Your task to perform on an android device: Search for the new Jordans on Nike.com Image 0: 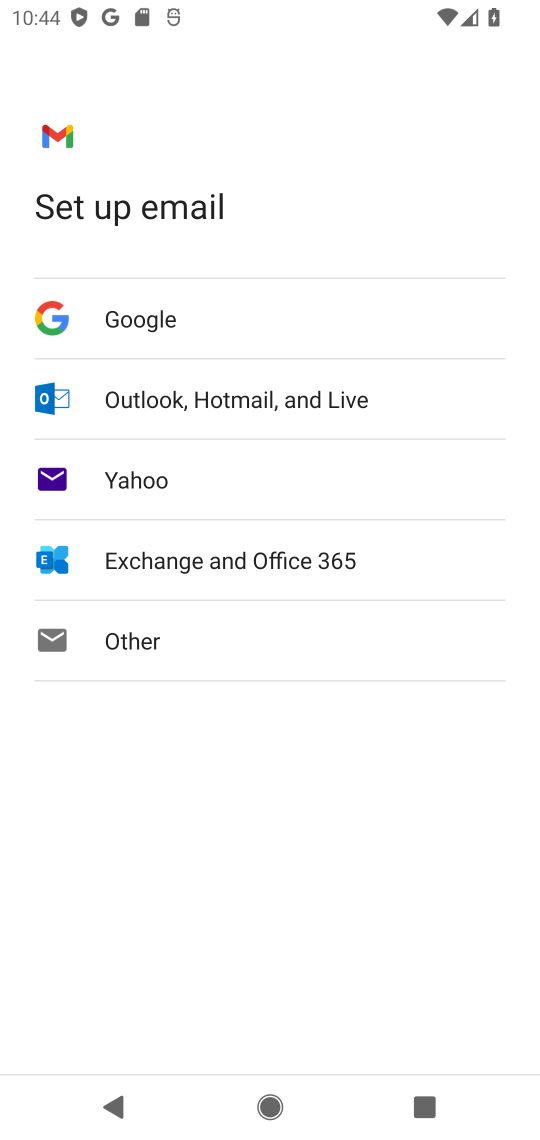
Step 0: press home button
Your task to perform on an android device: Search for the new Jordans on Nike.com Image 1: 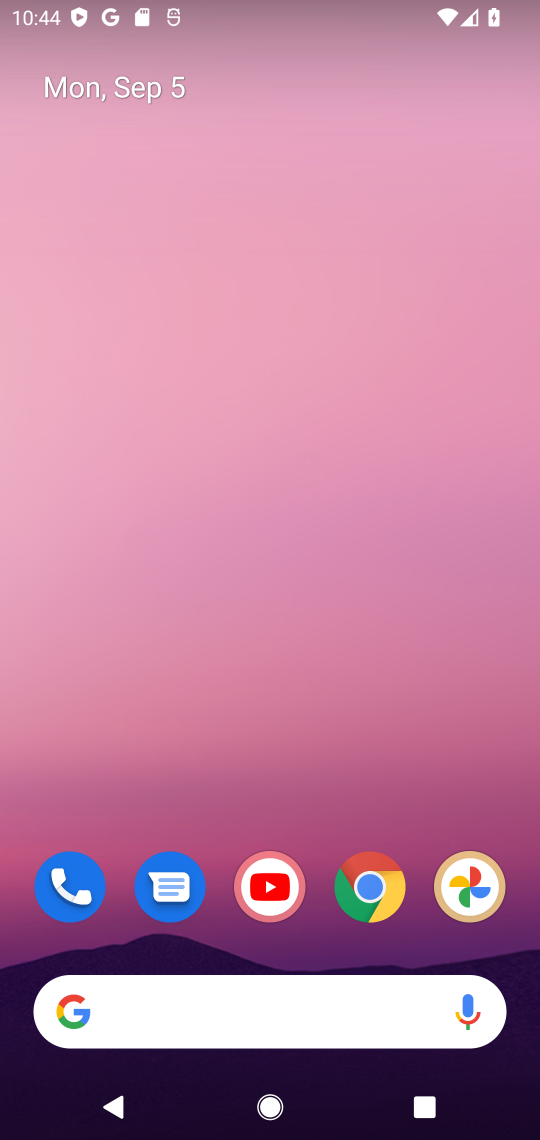
Step 1: click (345, 891)
Your task to perform on an android device: Search for the new Jordans on Nike.com Image 2: 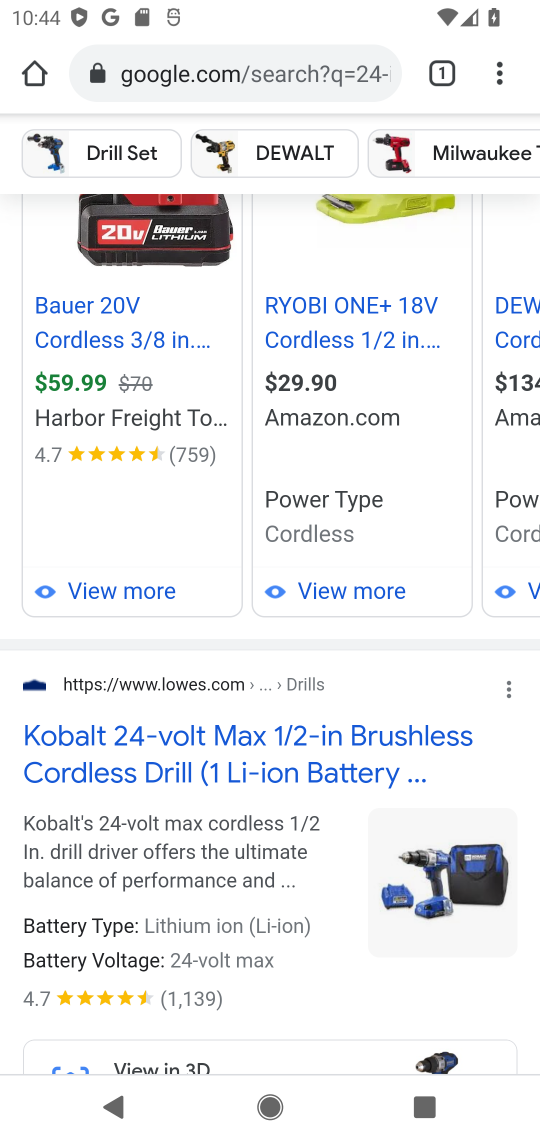
Step 2: click (265, 77)
Your task to perform on an android device: Search for the new Jordans on Nike.com Image 3: 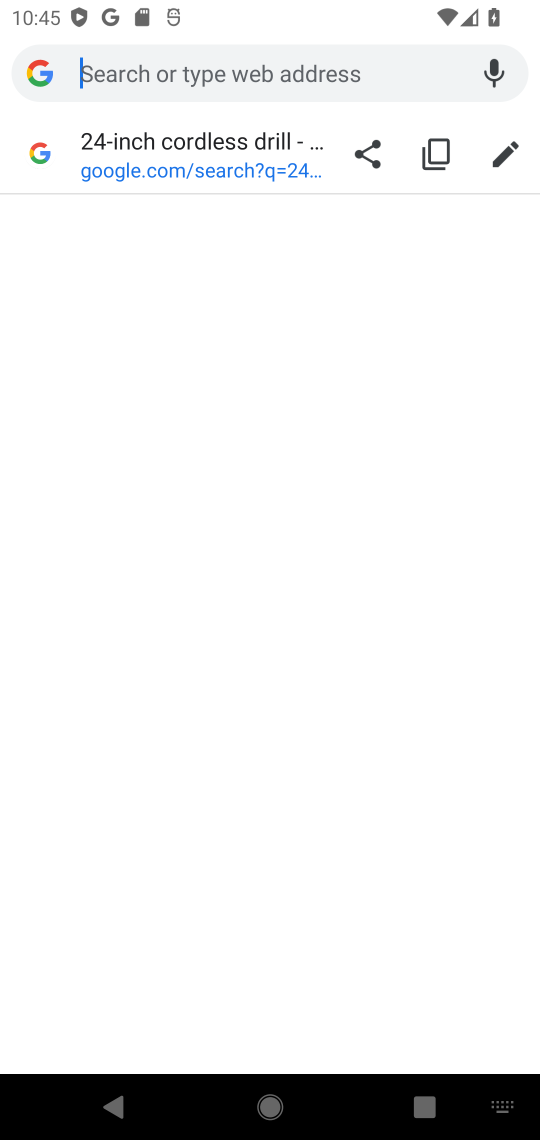
Step 3: type "nike.com"
Your task to perform on an android device: Search for the new Jordans on Nike.com Image 4: 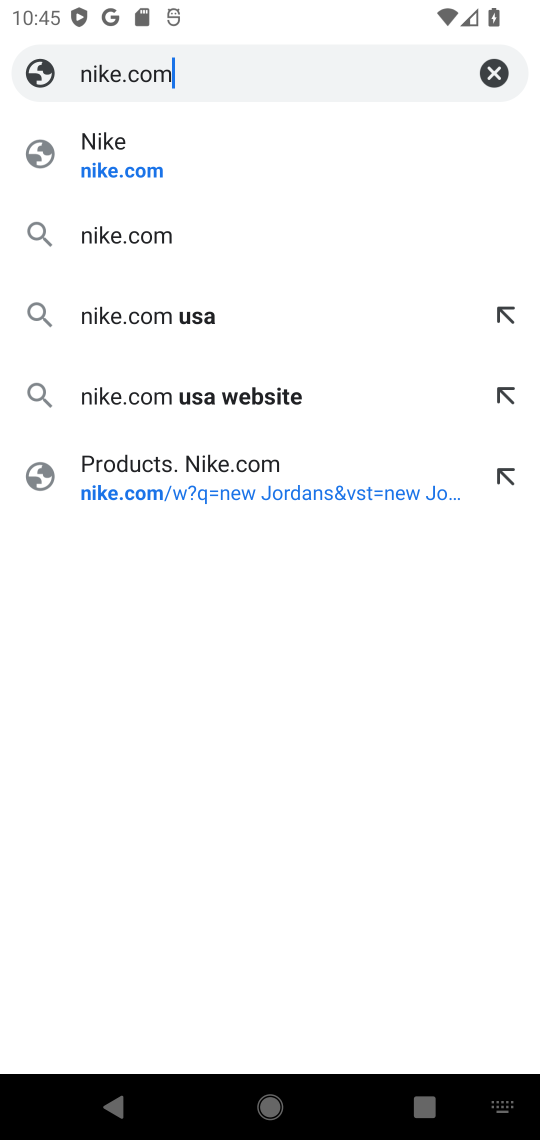
Step 4: press enter
Your task to perform on an android device: Search for the new Jordans on Nike.com Image 5: 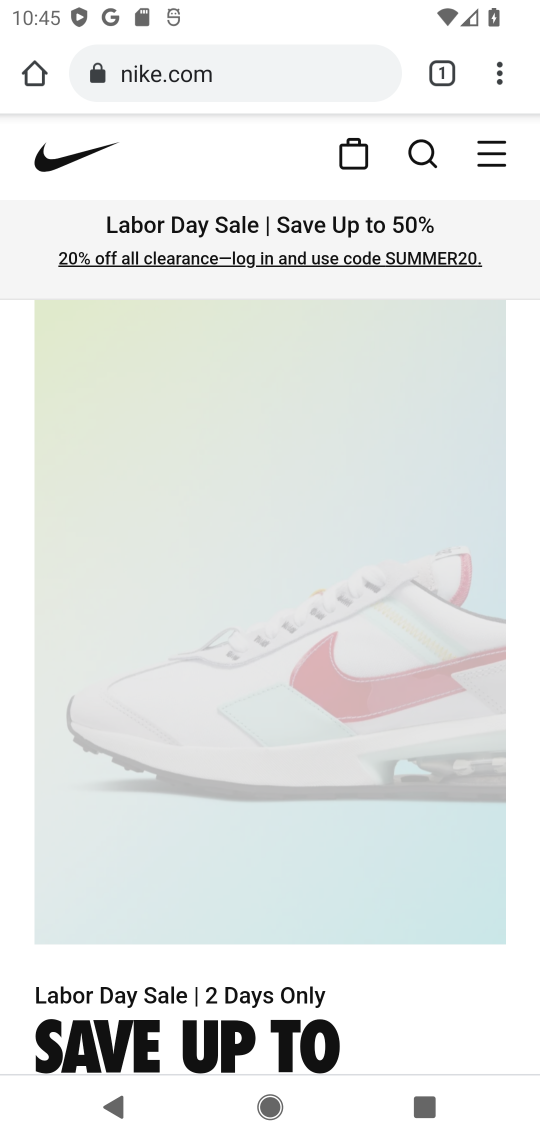
Step 5: click (412, 148)
Your task to perform on an android device: Search for the new Jordans on Nike.com Image 6: 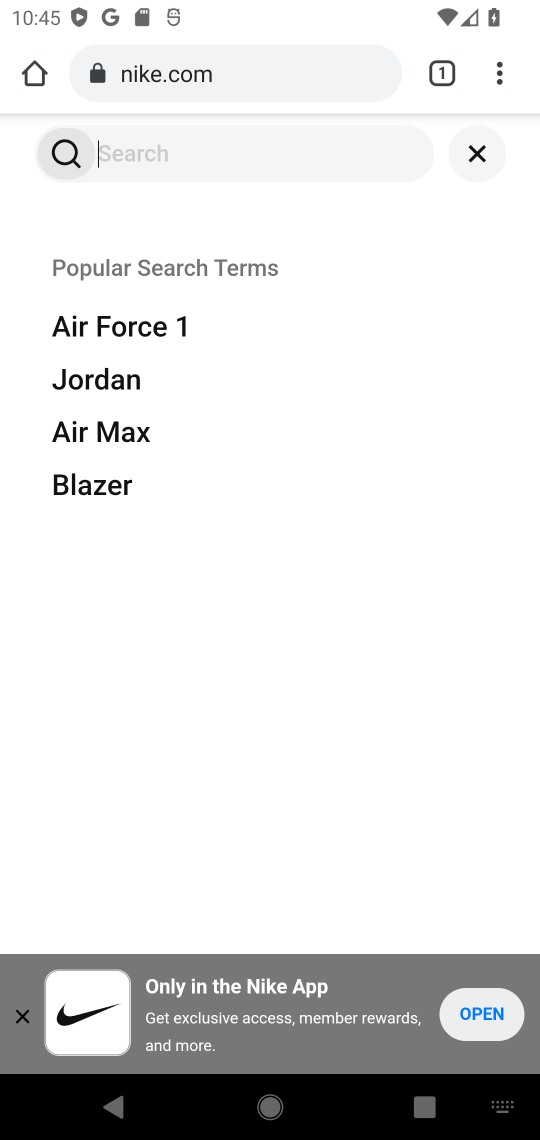
Step 6: type "new Jordans"
Your task to perform on an android device: Search for the new Jordans on Nike.com Image 7: 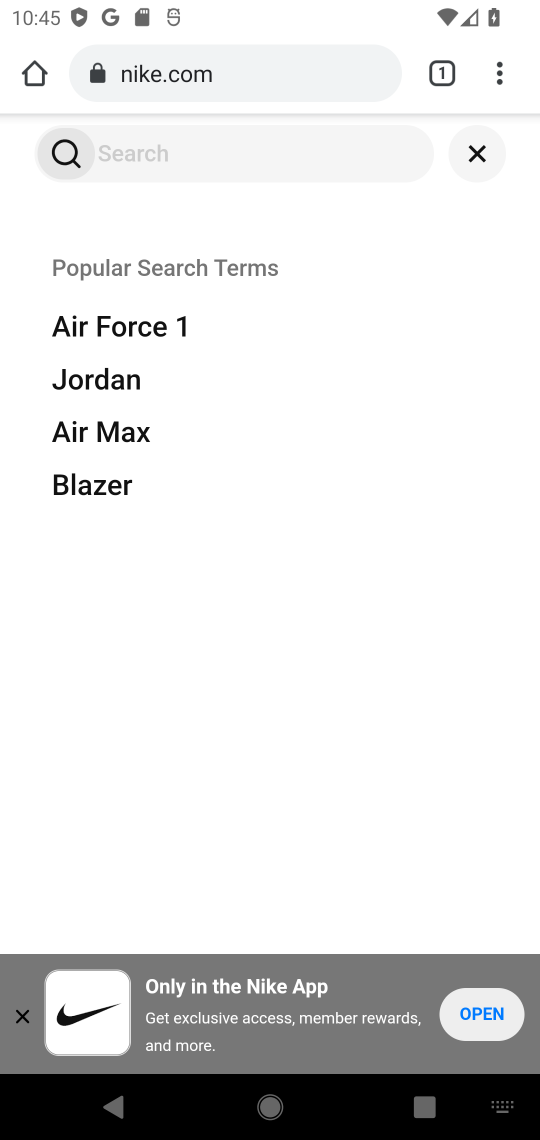
Step 7: type ""
Your task to perform on an android device: Search for the new Jordans on Nike.com Image 8: 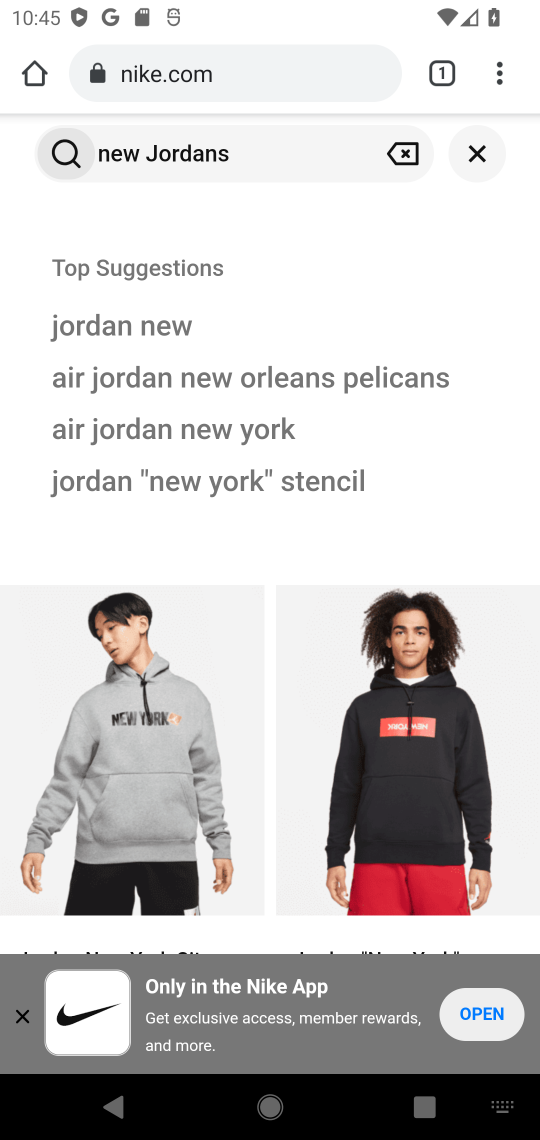
Step 8: press enter
Your task to perform on an android device: Search for the new Jordans on Nike.com Image 9: 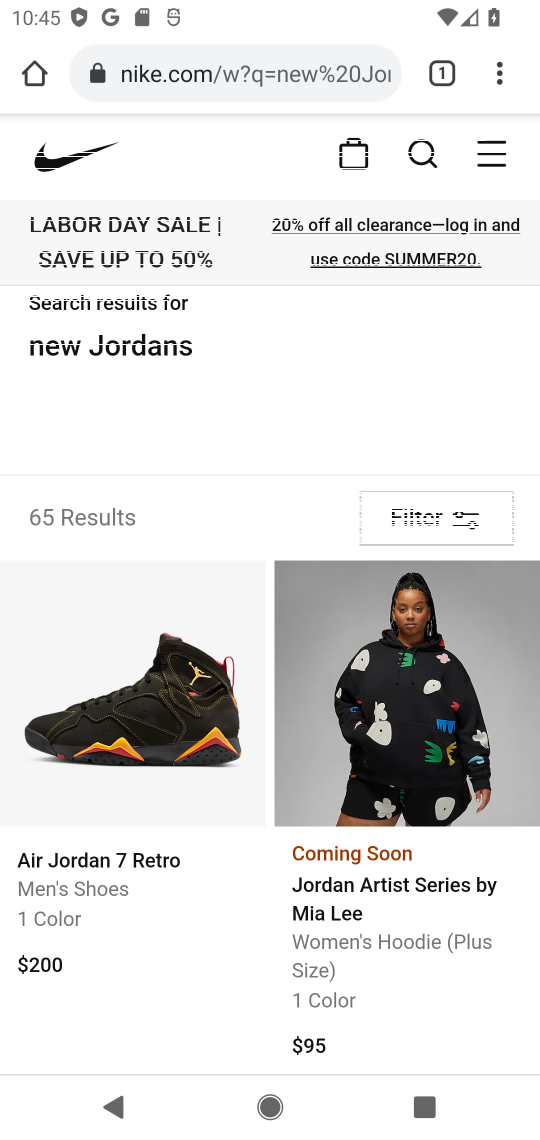
Step 9: drag from (251, 817) to (215, 332)
Your task to perform on an android device: Search for the new Jordans on Nike.com Image 10: 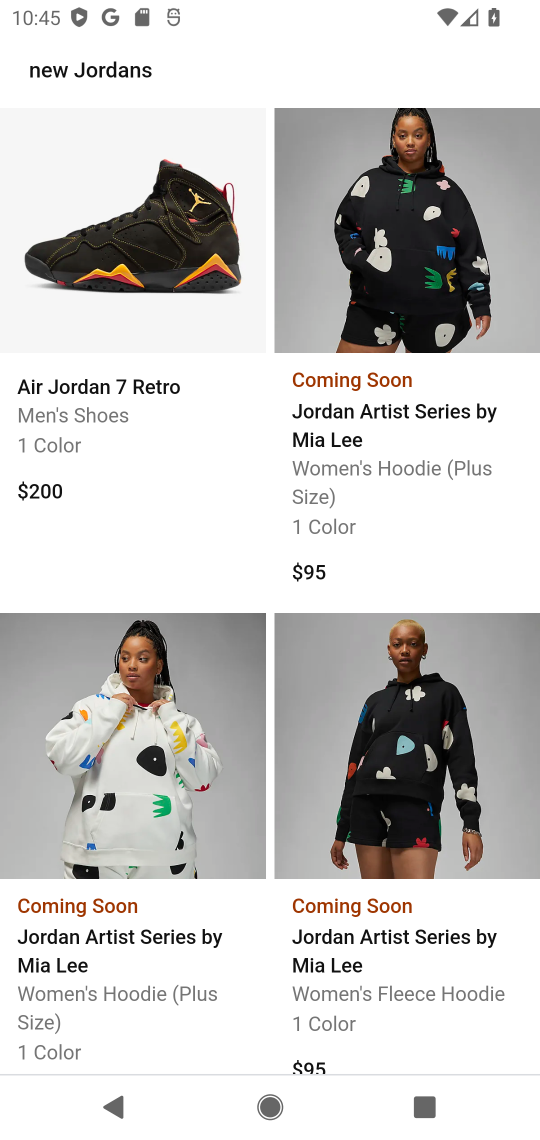
Step 10: drag from (224, 390) to (219, 287)
Your task to perform on an android device: Search for the new Jordans on Nike.com Image 11: 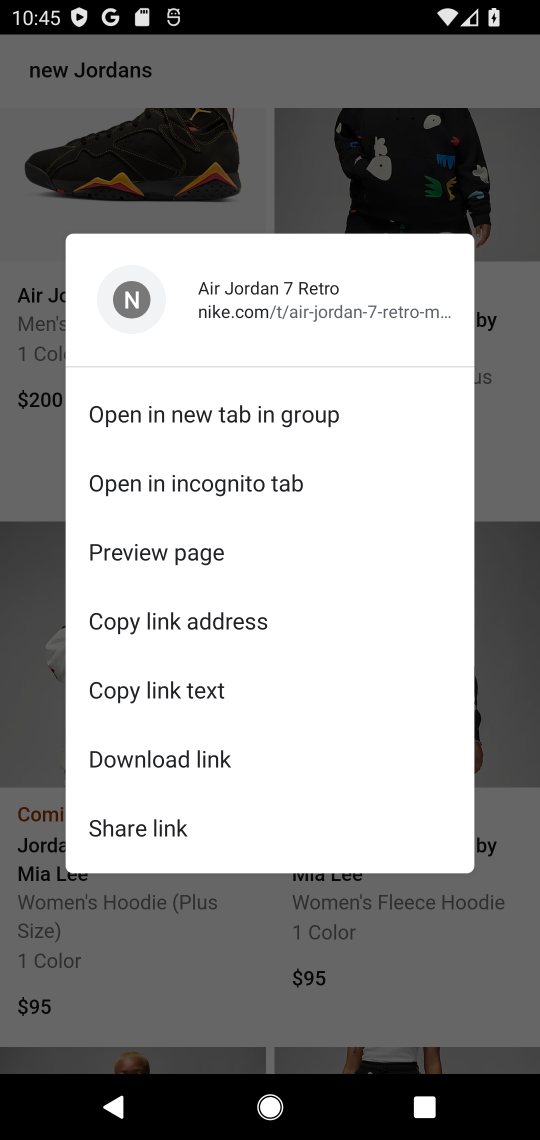
Step 11: click (506, 565)
Your task to perform on an android device: Search for the new Jordans on Nike.com Image 12: 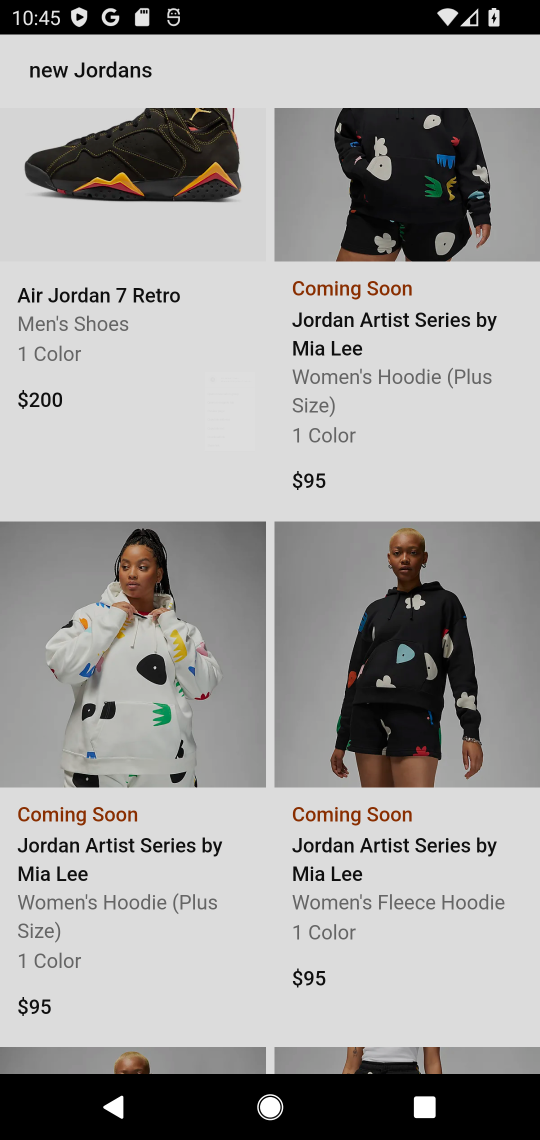
Step 12: drag from (237, 769) to (254, 173)
Your task to perform on an android device: Search for the new Jordans on Nike.com Image 13: 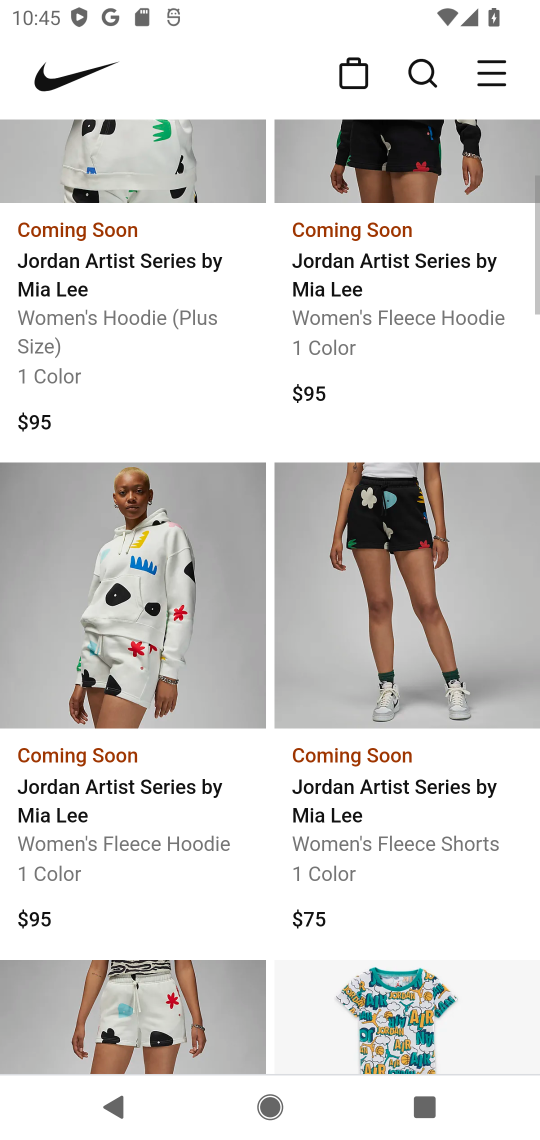
Step 13: drag from (268, 508) to (289, 262)
Your task to perform on an android device: Search for the new Jordans on Nike.com Image 14: 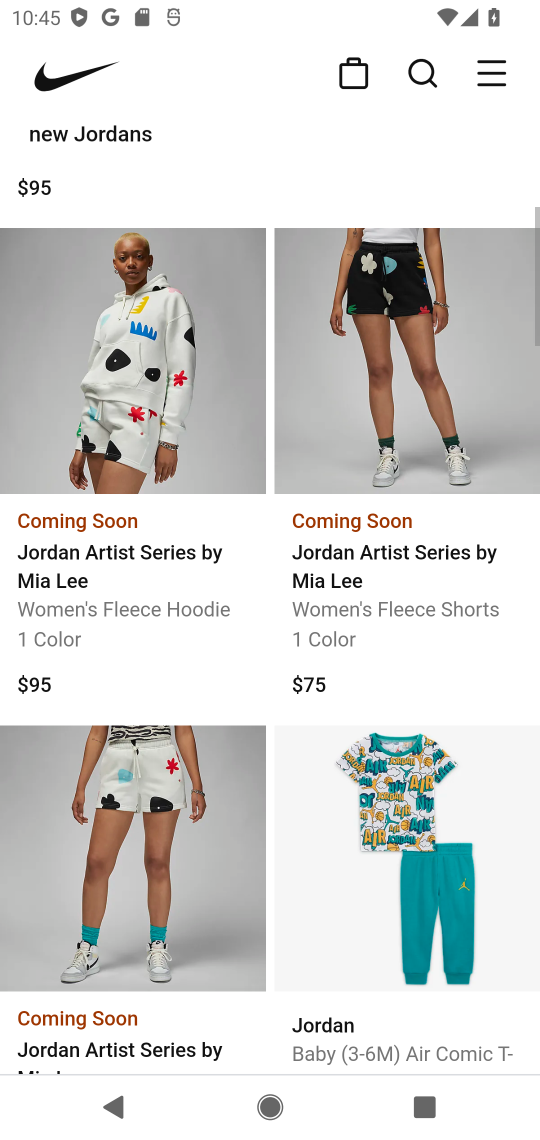
Step 14: drag from (271, 612) to (260, 158)
Your task to perform on an android device: Search for the new Jordans on Nike.com Image 15: 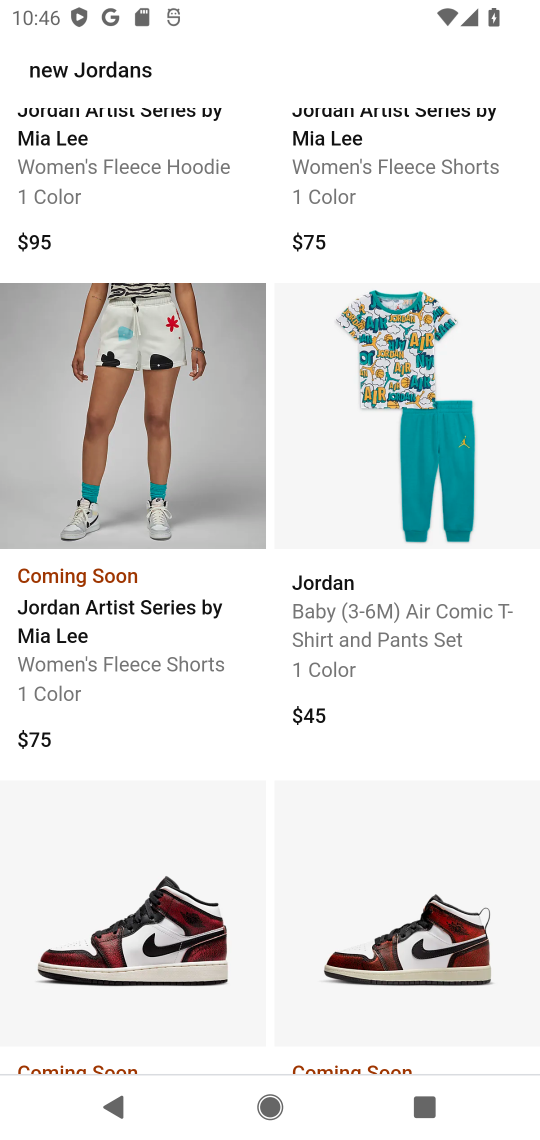
Step 15: drag from (248, 784) to (254, 343)
Your task to perform on an android device: Search for the new Jordans on Nike.com Image 16: 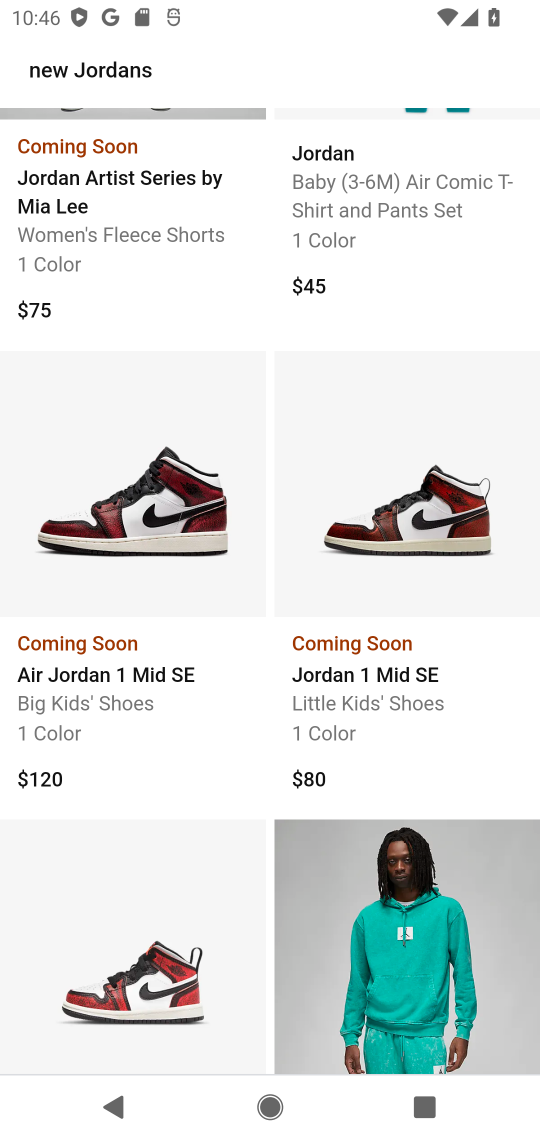
Step 16: drag from (214, 588) to (220, 321)
Your task to perform on an android device: Search for the new Jordans on Nike.com Image 17: 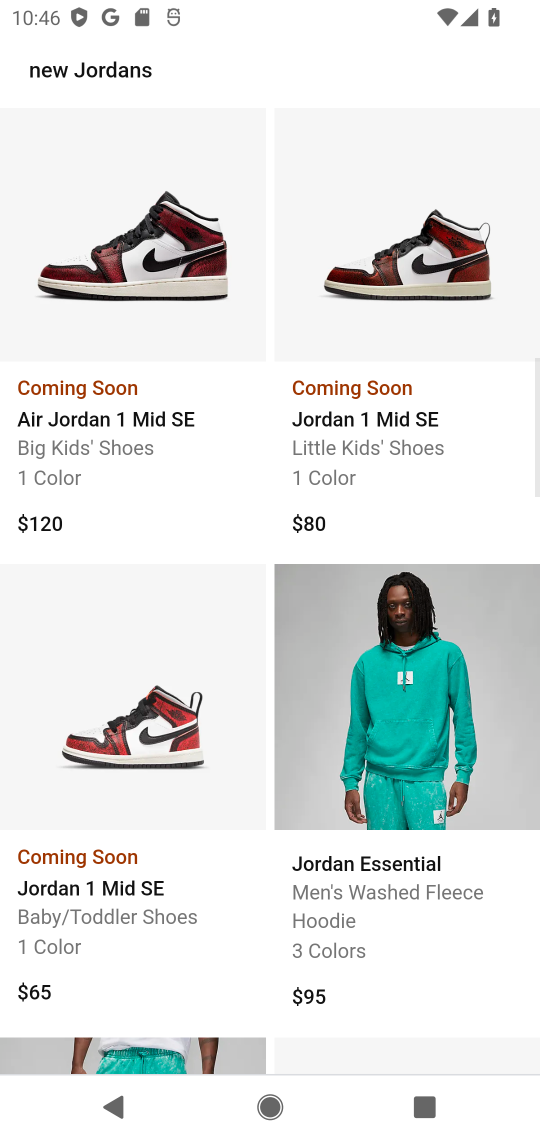
Step 17: drag from (266, 744) to (306, 476)
Your task to perform on an android device: Search for the new Jordans on Nike.com Image 18: 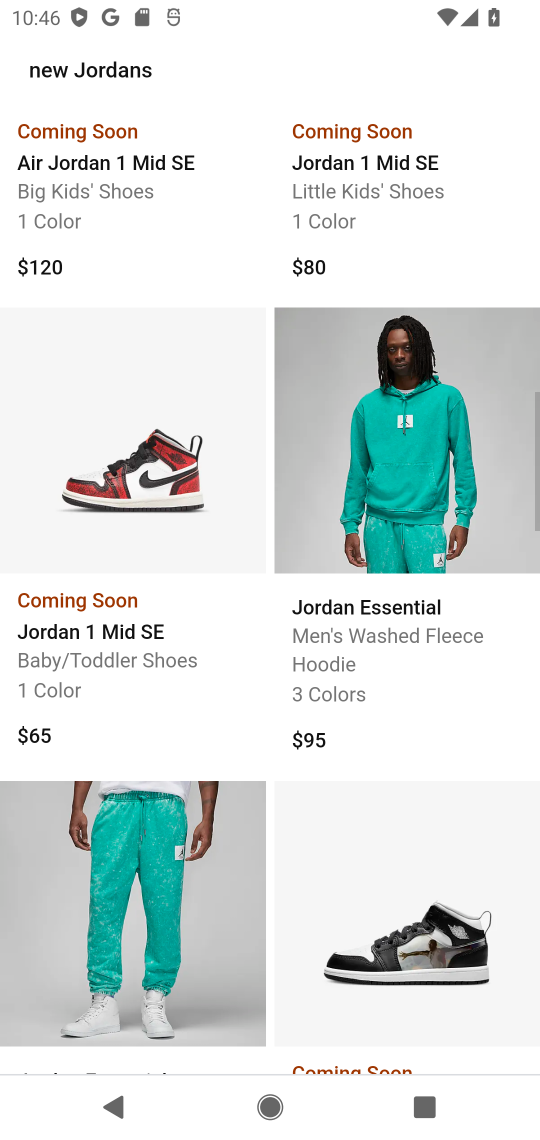
Step 18: drag from (323, 695) to (338, 415)
Your task to perform on an android device: Search for the new Jordans on Nike.com Image 19: 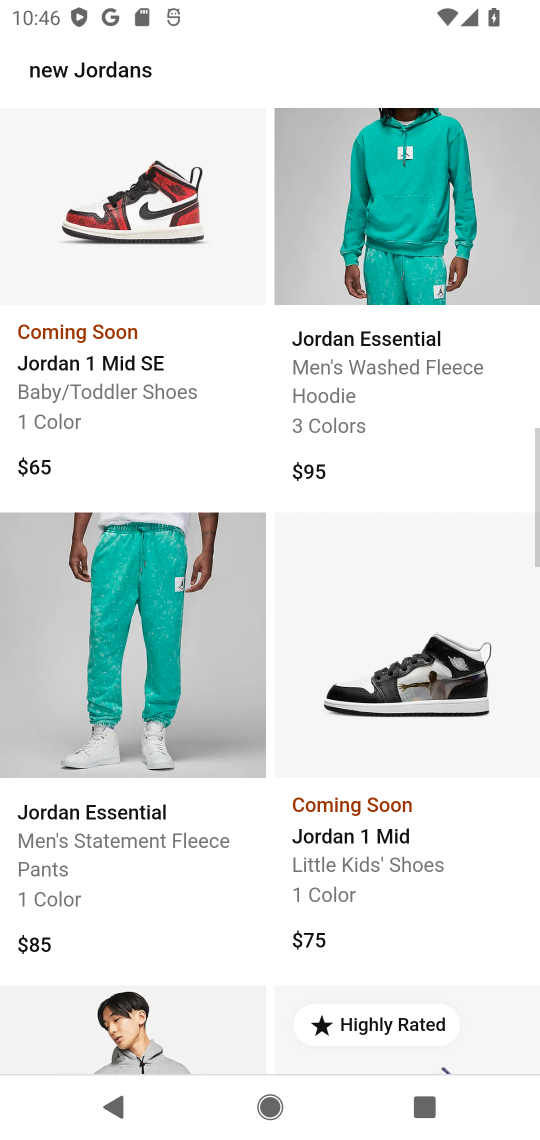
Step 19: drag from (345, 666) to (376, 271)
Your task to perform on an android device: Search for the new Jordans on Nike.com Image 20: 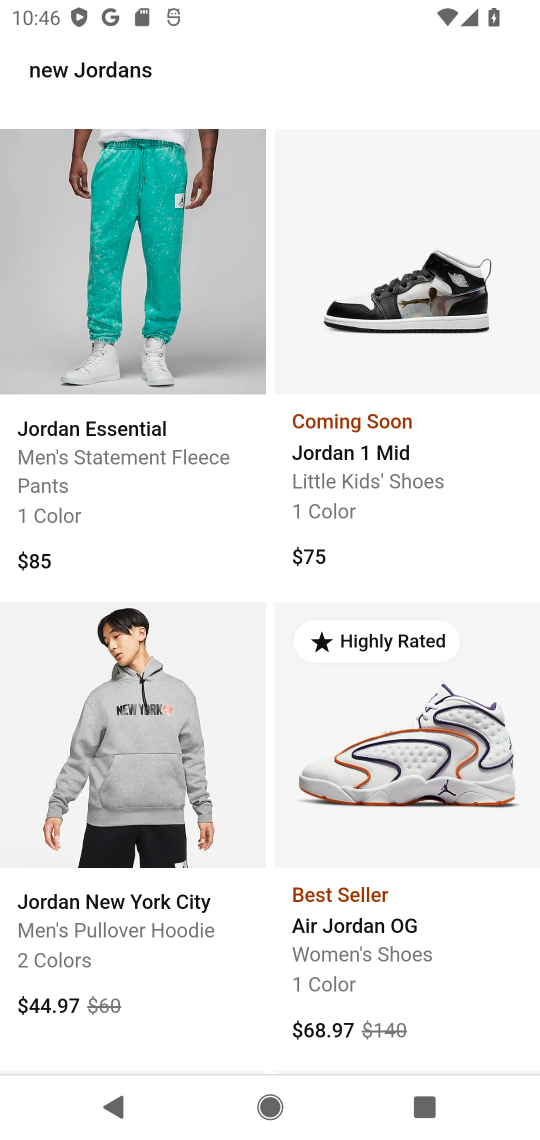
Step 20: drag from (278, 401) to (314, 902)
Your task to perform on an android device: Search for the new Jordans on Nike.com Image 21: 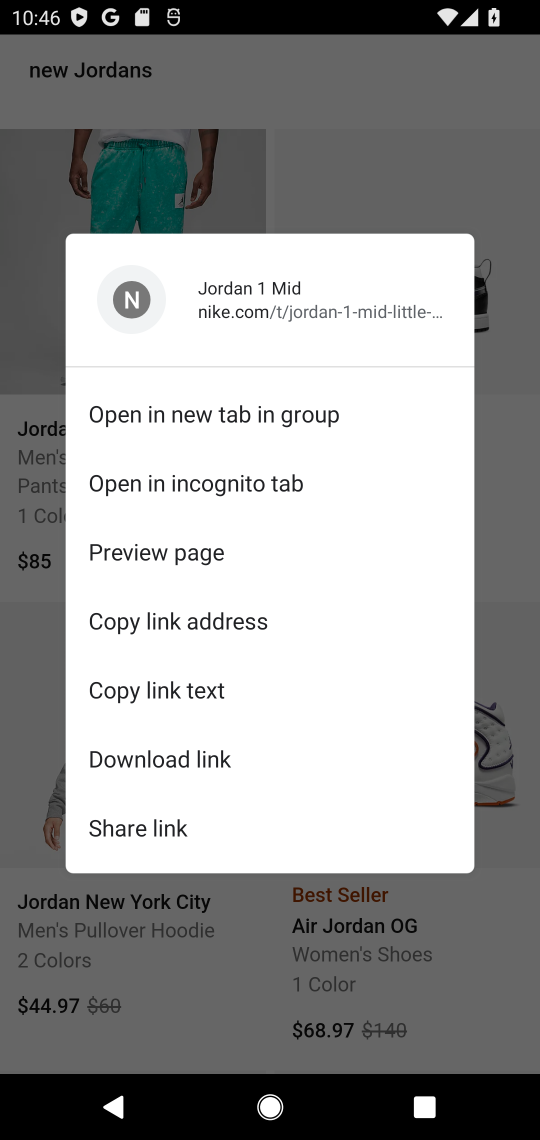
Step 21: click (336, 974)
Your task to perform on an android device: Search for the new Jordans on Nike.com Image 22: 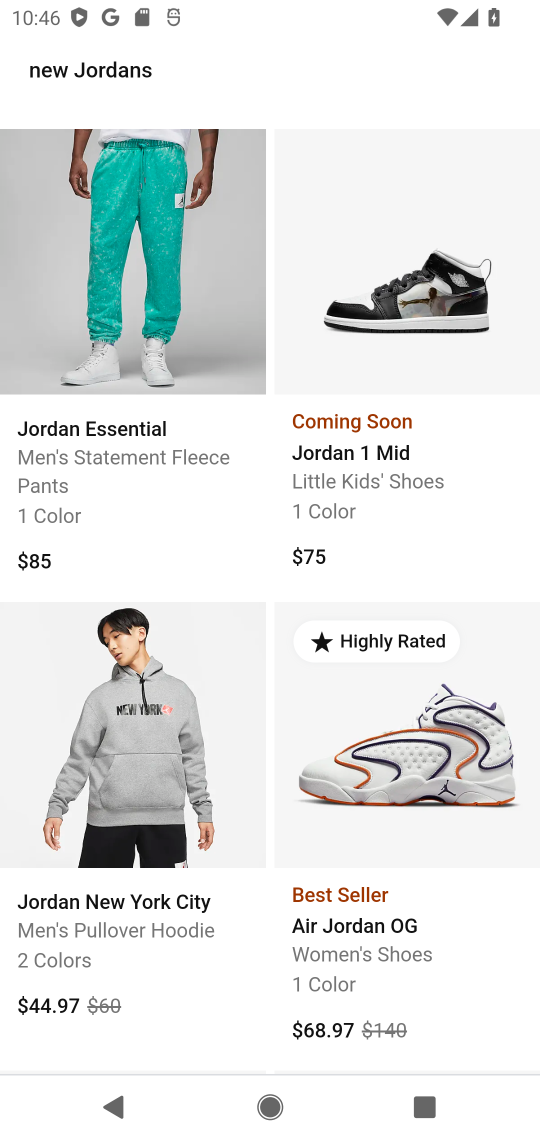
Step 22: task complete